Your task to perform on an android device: Open settings on Google Maps Image 0: 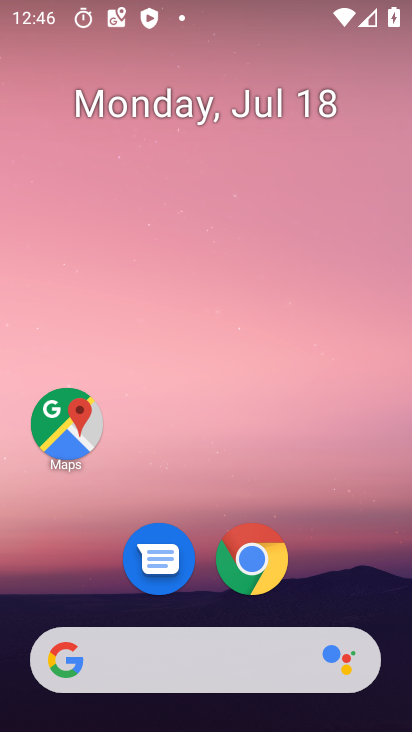
Step 0: click (79, 412)
Your task to perform on an android device: Open settings on Google Maps Image 1: 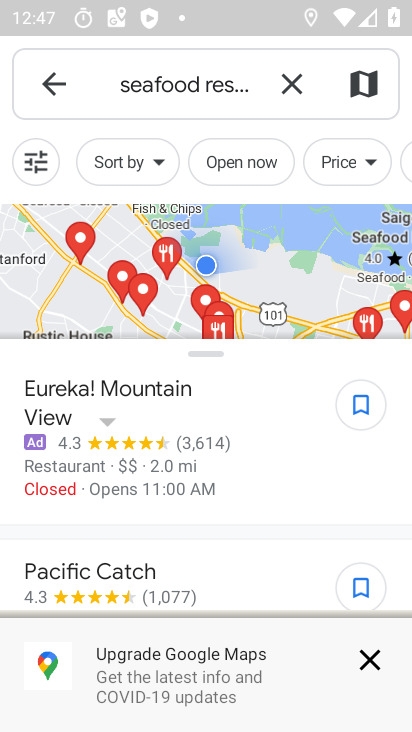
Step 1: click (55, 87)
Your task to perform on an android device: Open settings on Google Maps Image 2: 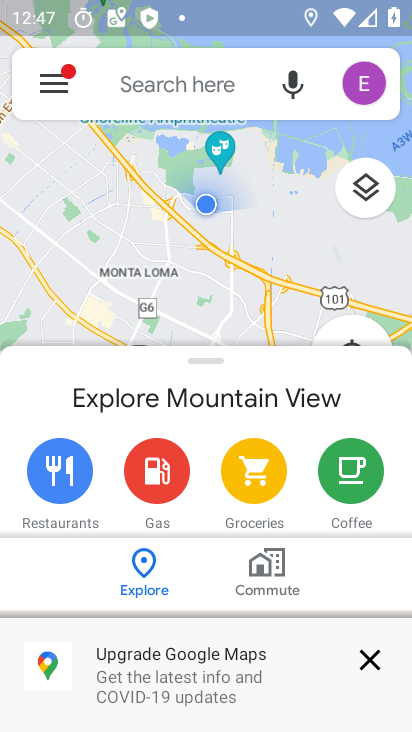
Step 2: click (52, 81)
Your task to perform on an android device: Open settings on Google Maps Image 3: 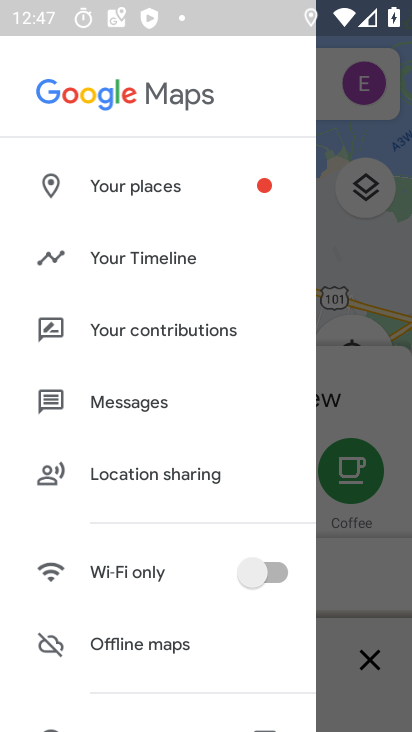
Step 3: drag from (68, 582) to (129, 87)
Your task to perform on an android device: Open settings on Google Maps Image 4: 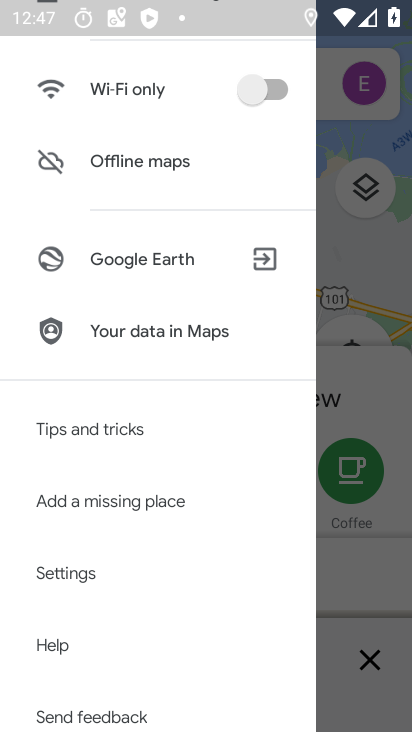
Step 4: click (143, 587)
Your task to perform on an android device: Open settings on Google Maps Image 5: 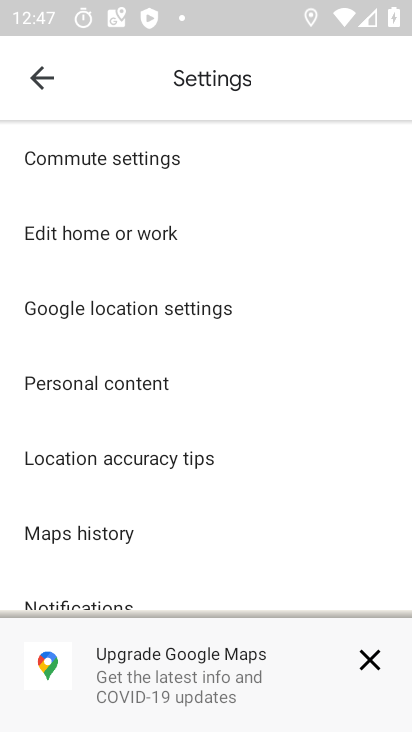
Step 5: task complete